Your task to perform on an android device: Go to Amazon Image 0: 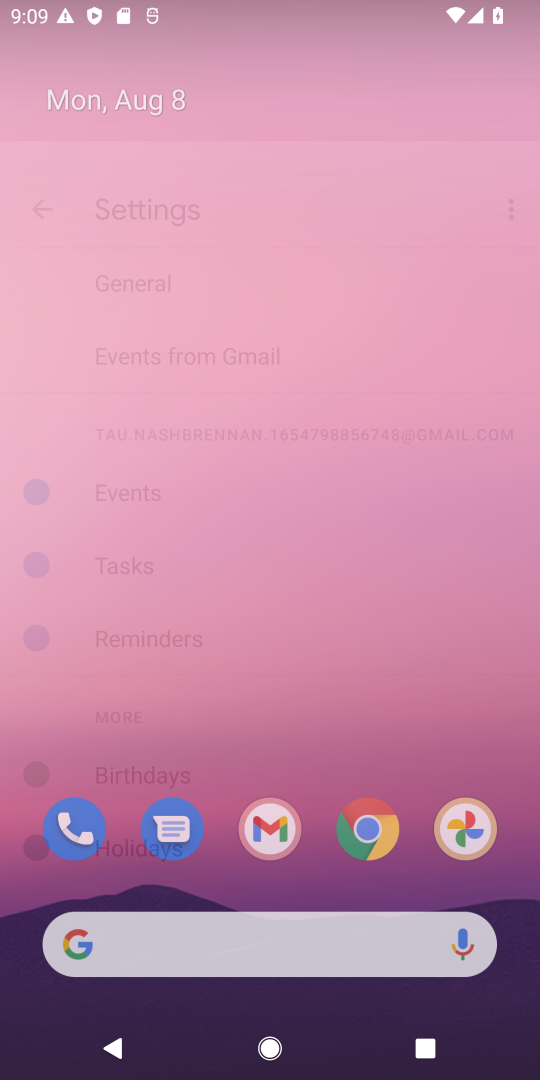
Step 0: press home button
Your task to perform on an android device: Go to Amazon Image 1: 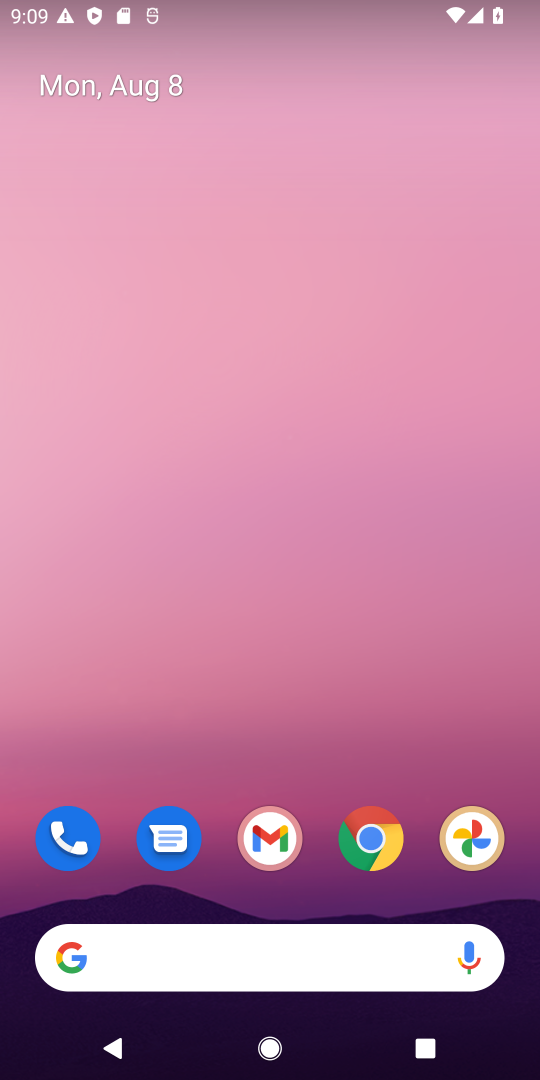
Step 1: click (84, 961)
Your task to perform on an android device: Go to Amazon Image 2: 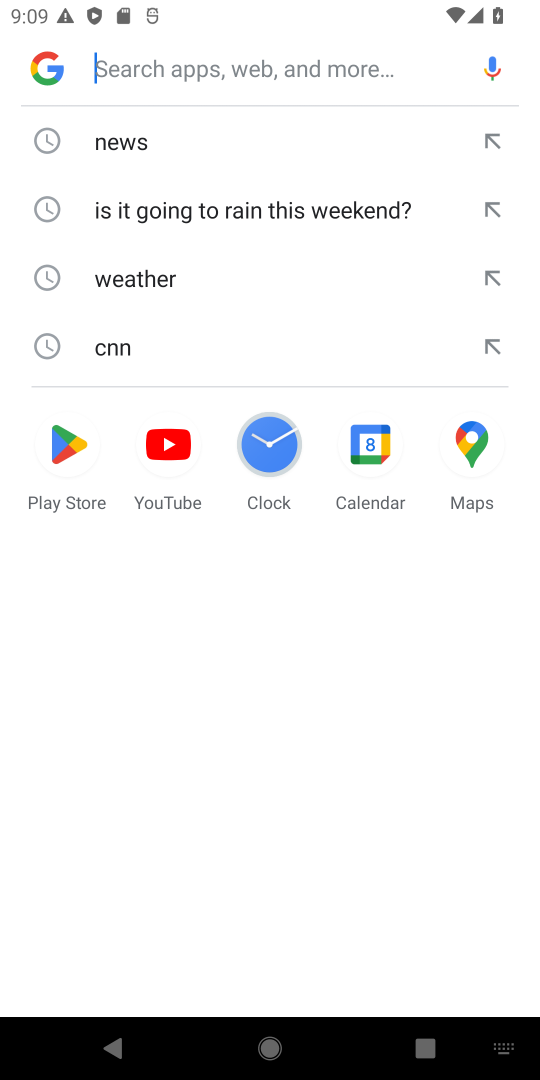
Step 2: type " Amazon"
Your task to perform on an android device: Go to Amazon Image 3: 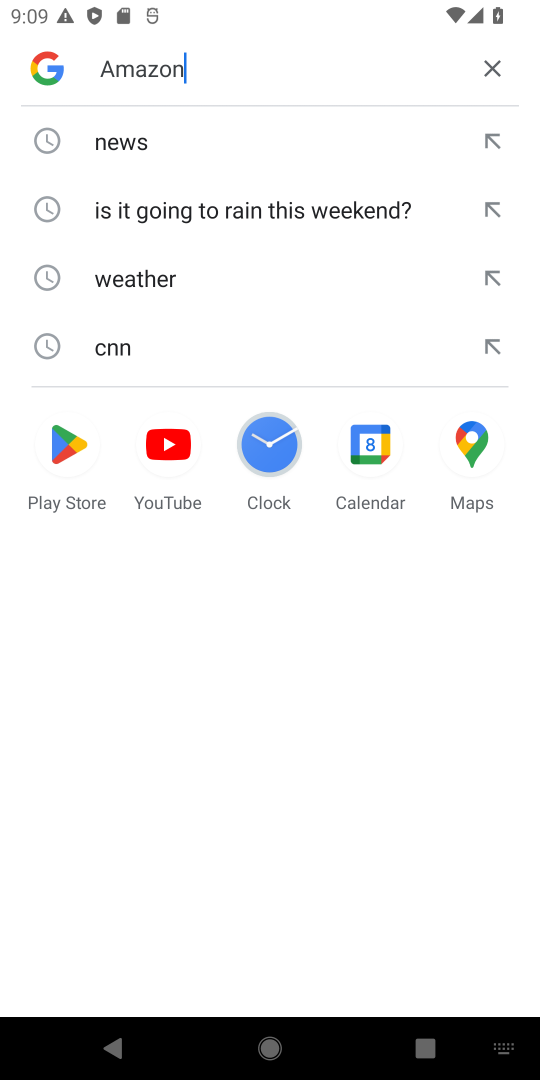
Step 3: press enter
Your task to perform on an android device: Go to Amazon Image 4: 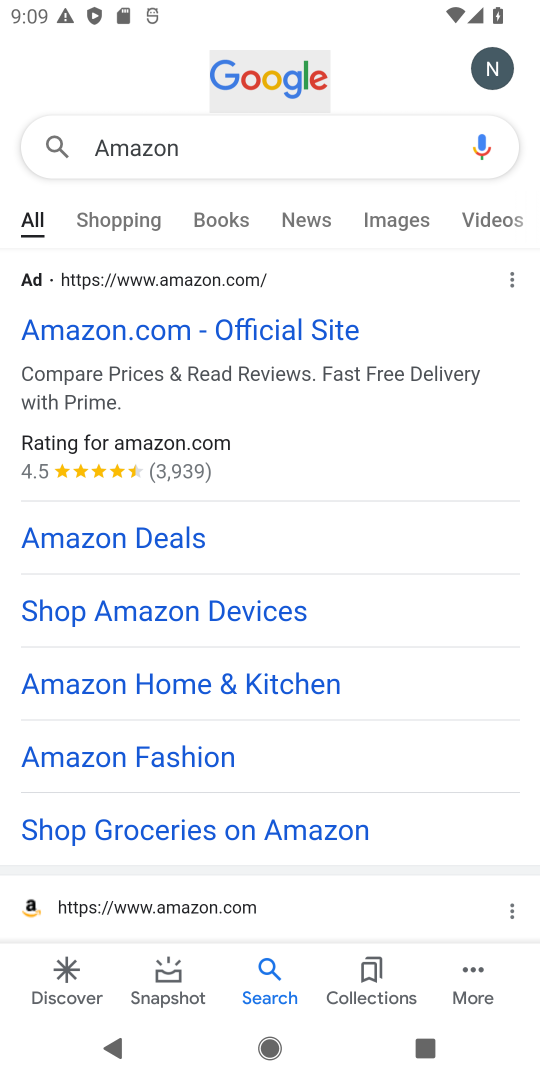
Step 4: click (172, 336)
Your task to perform on an android device: Go to Amazon Image 5: 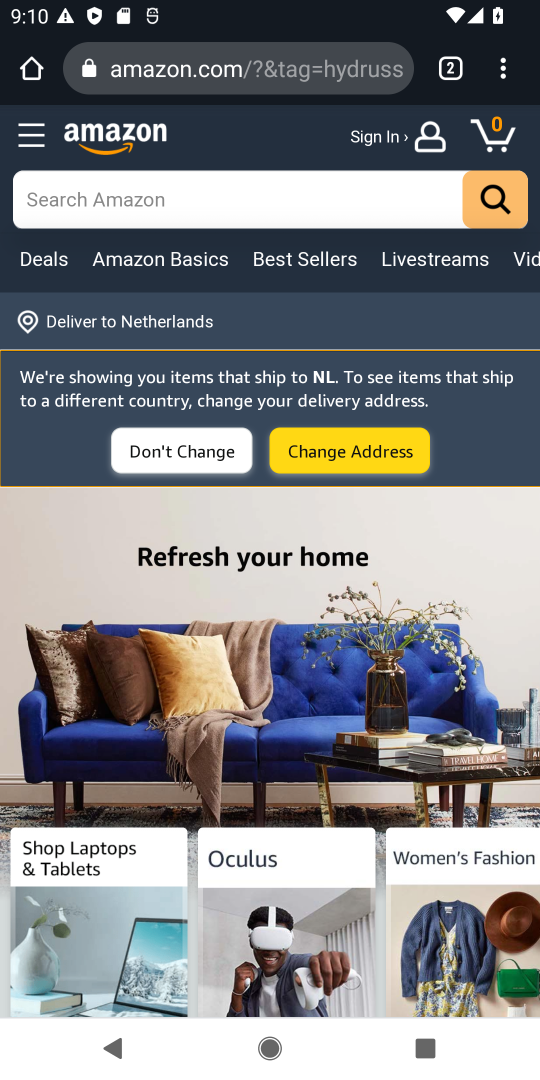
Step 5: task complete